Your task to perform on an android device: toggle notifications settings in the gmail app Image 0: 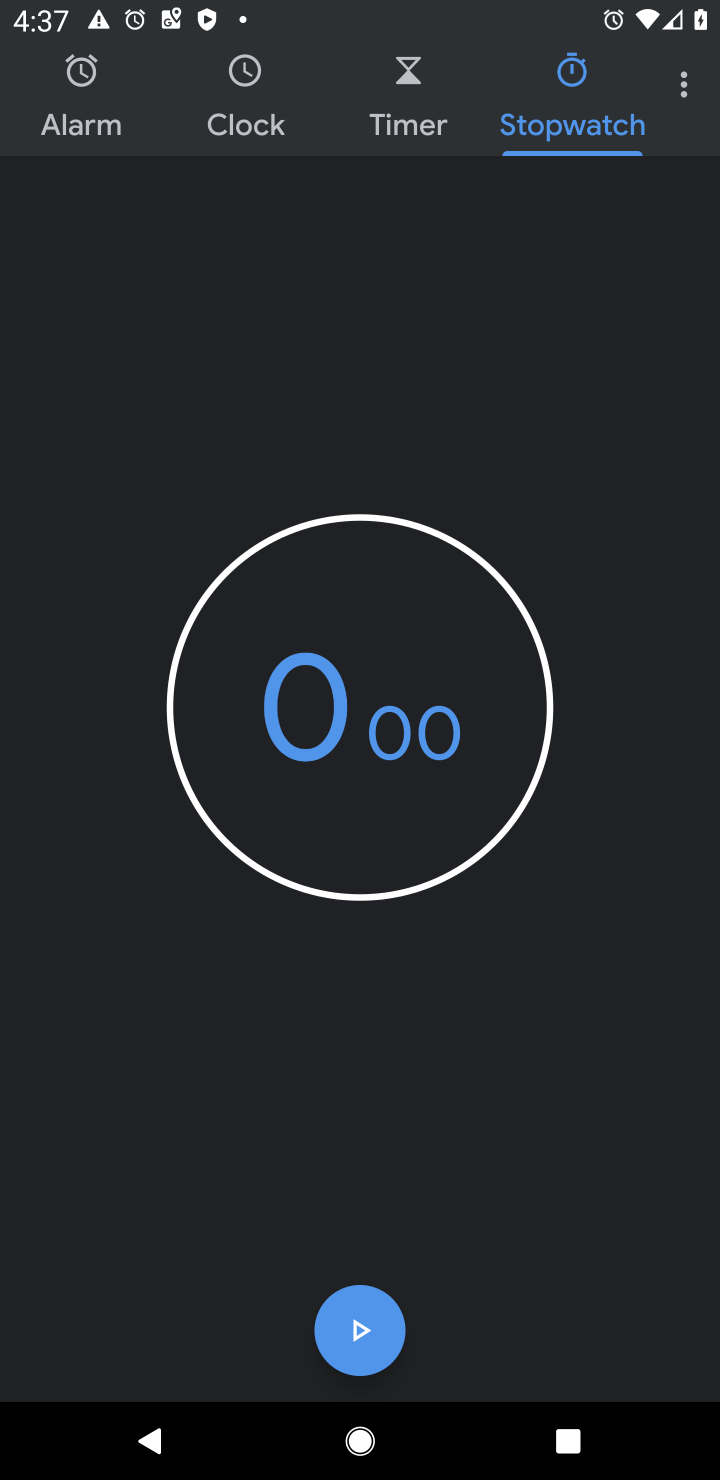
Step 0: press home button
Your task to perform on an android device: toggle notifications settings in the gmail app Image 1: 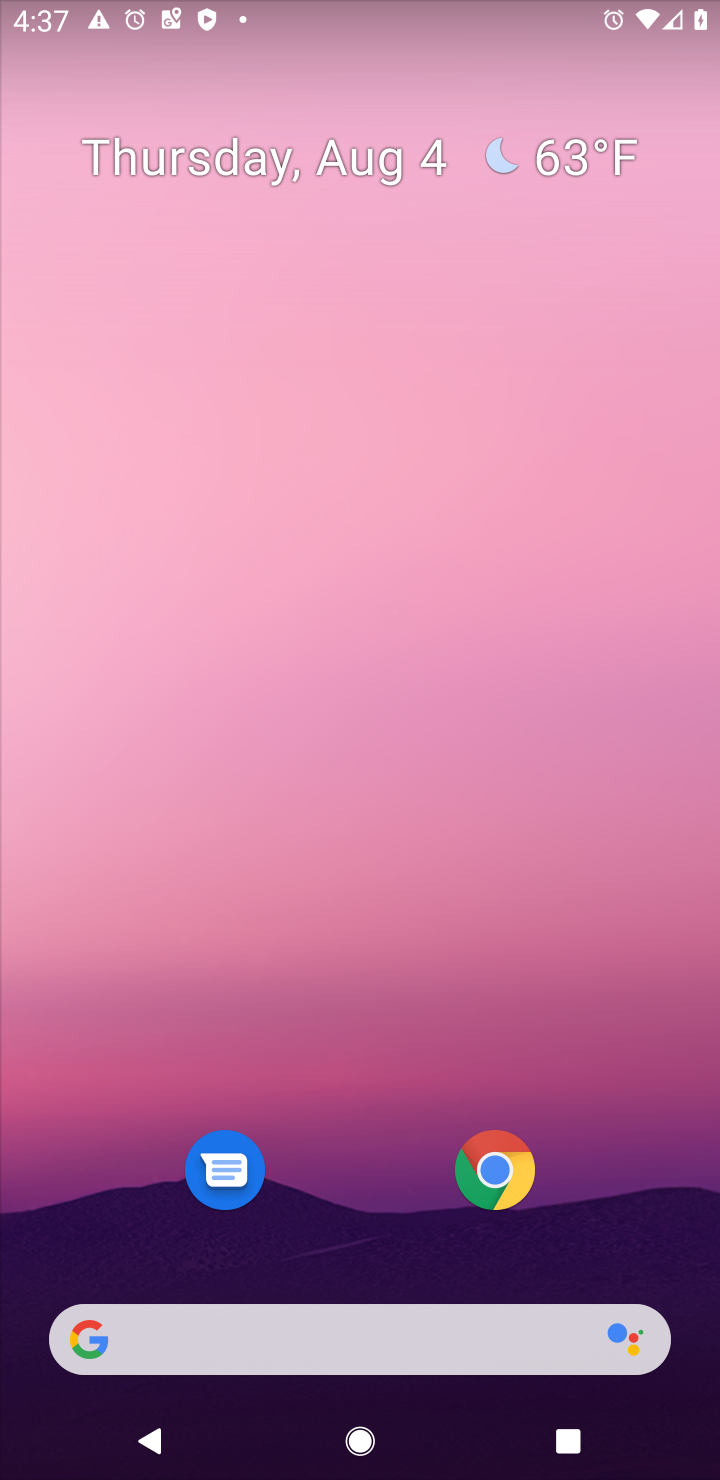
Step 1: drag from (620, 1087) to (520, 154)
Your task to perform on an android device: toggle notifications settings in the gmail app Image 2: 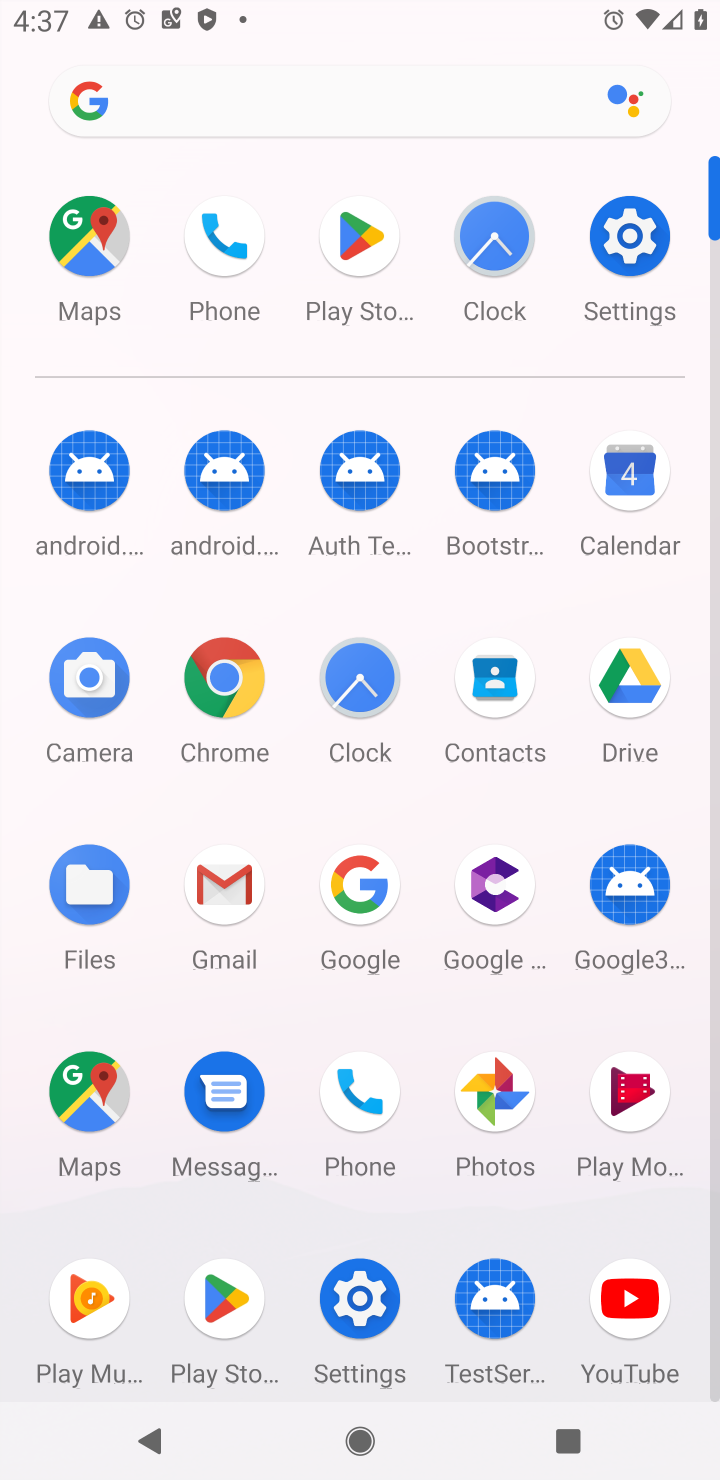
Step 2: click (226, 887)
Your task to perform on an android device: toggle notifications settings in the gmail app Image 3: 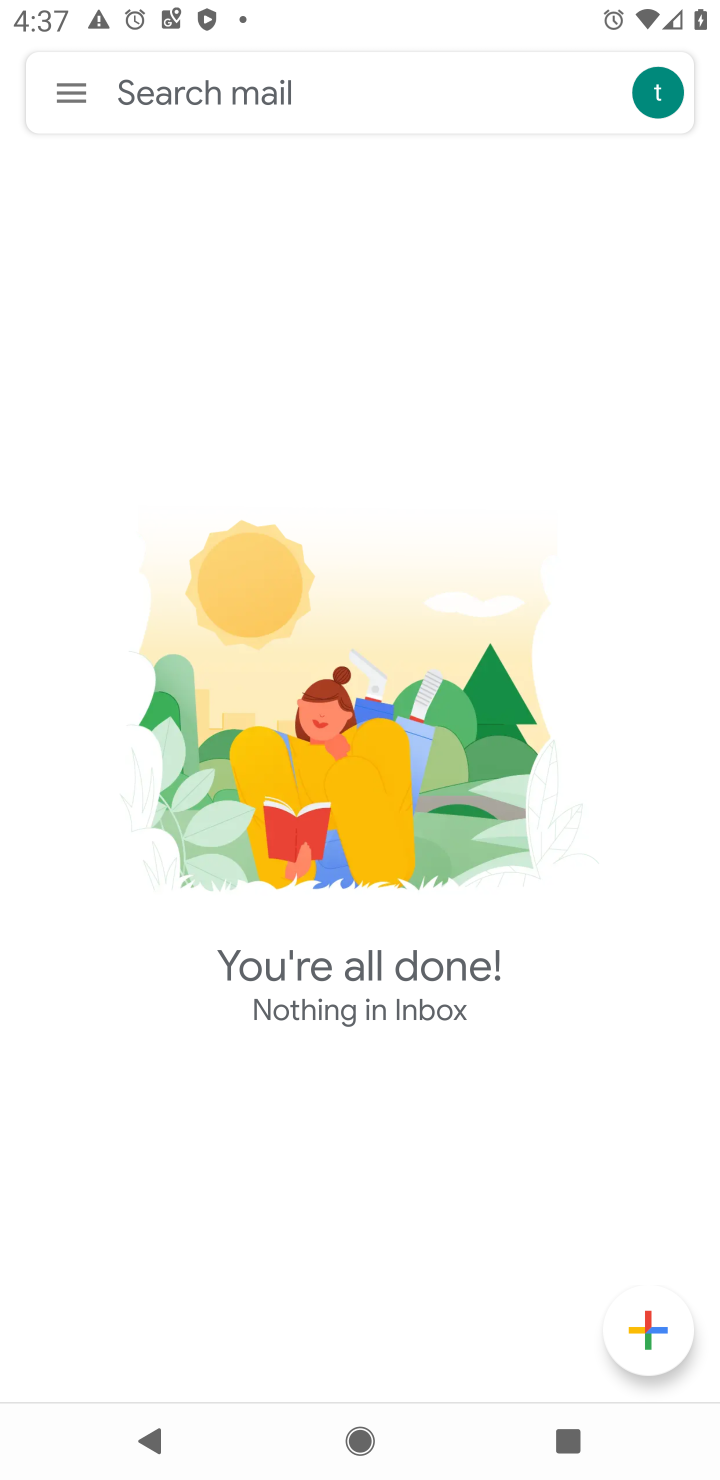
Step 3: click (56, 92)
Your task to perform on an android device: toggle notifications settings in the gmail app Image 4: 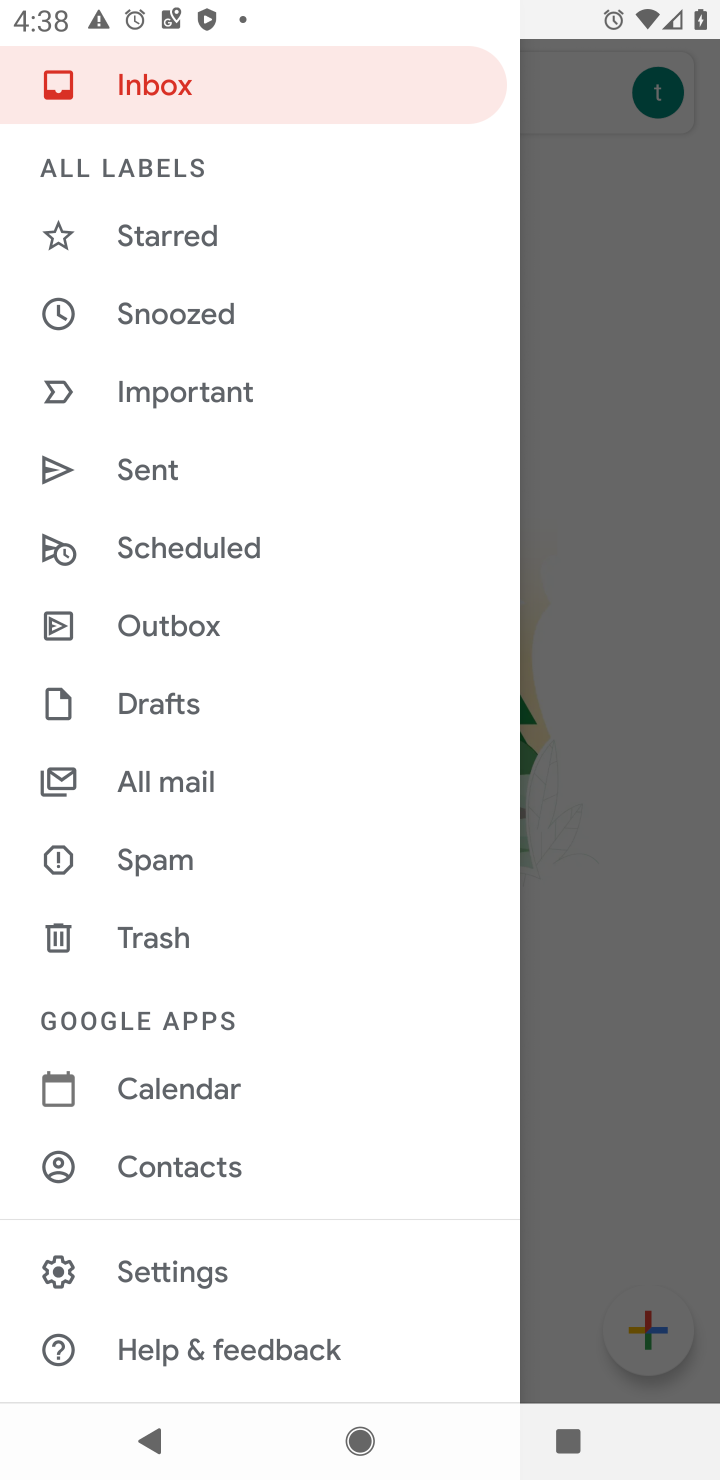
Step 4: click (170, 1266)
Your task to perform on an android device: toggle notifications settings in the gmail app Image 5: 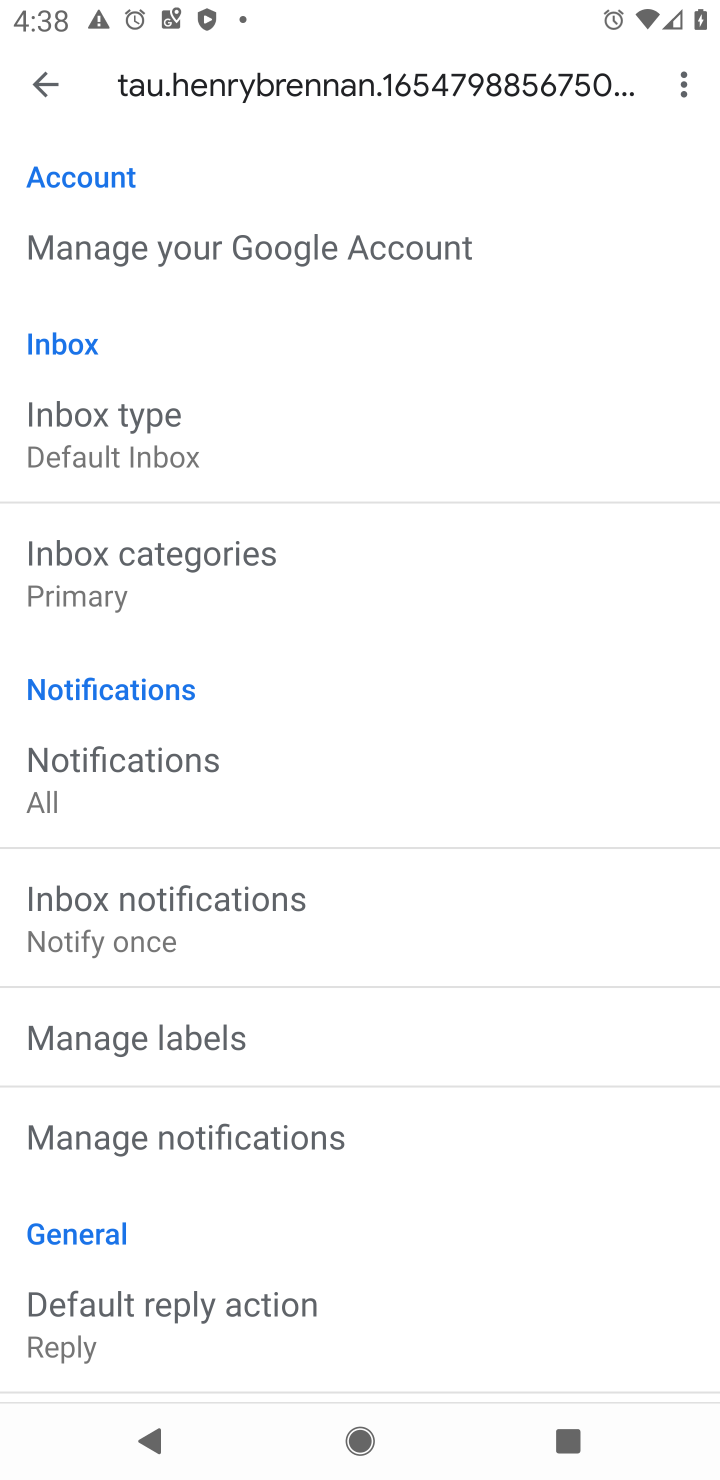
Step 5: click (182, 1108)
Your task to perform on an android device: toggle notifications settings in the gmail app Image 6: 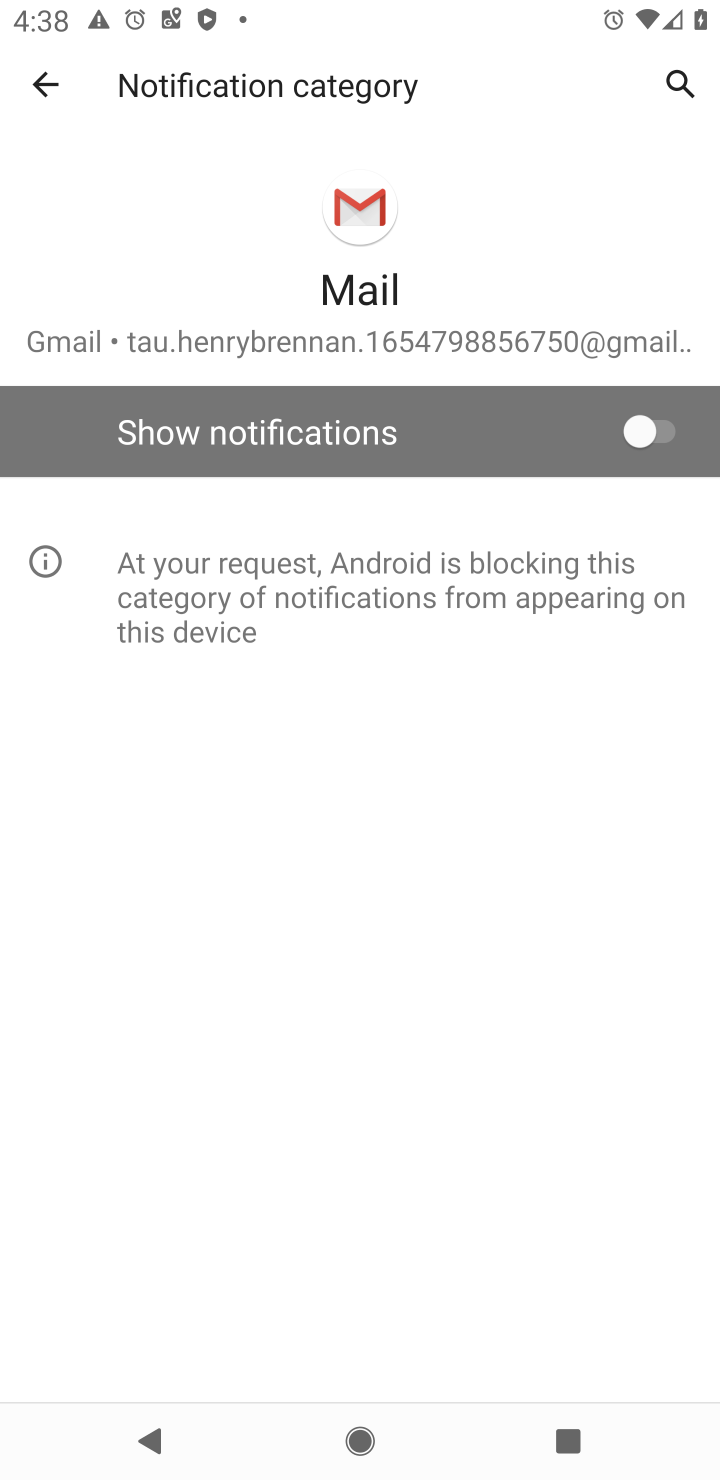
Step 6: click (661, 429)
Your task to perform on an android device: toggle notifications settings in the gmail app Image 7: 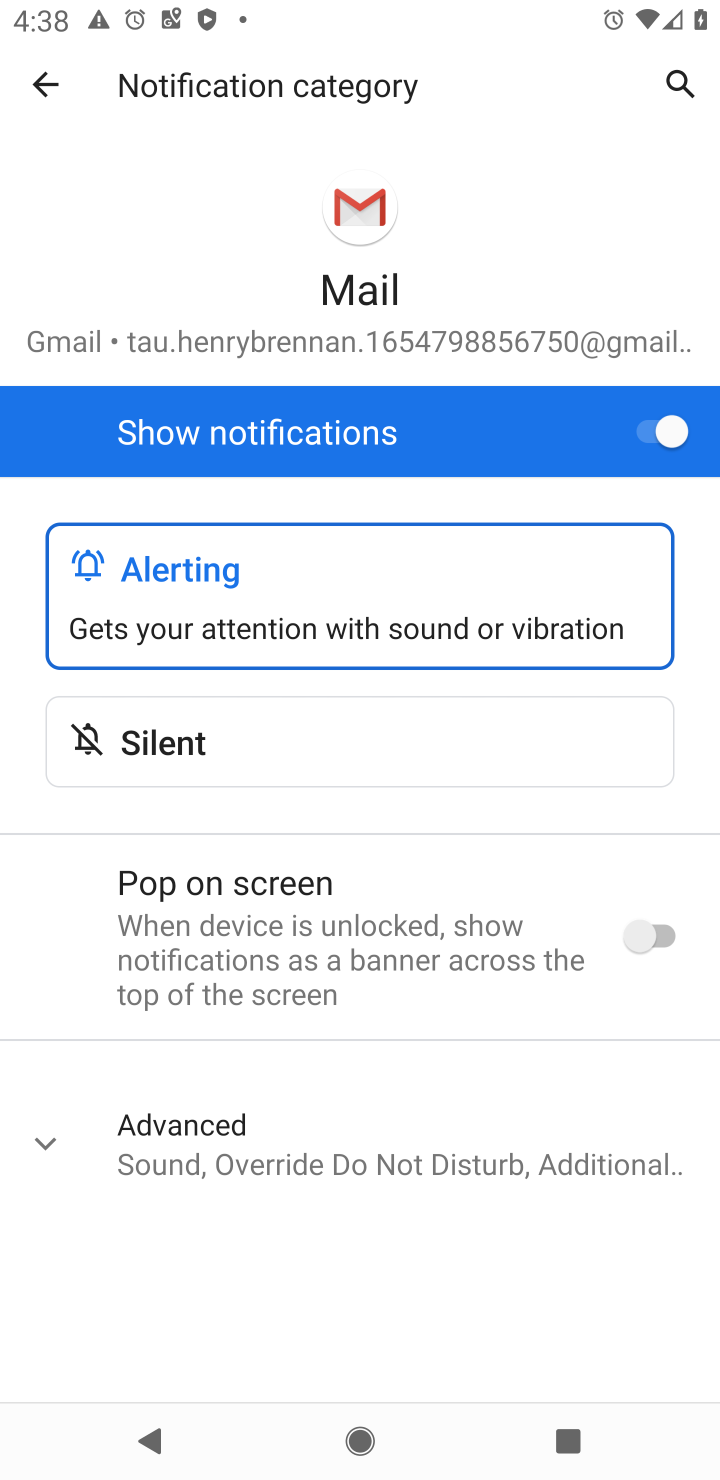
Step 7: task complete